Your task to perform on an android device: Open network settings Image 0: 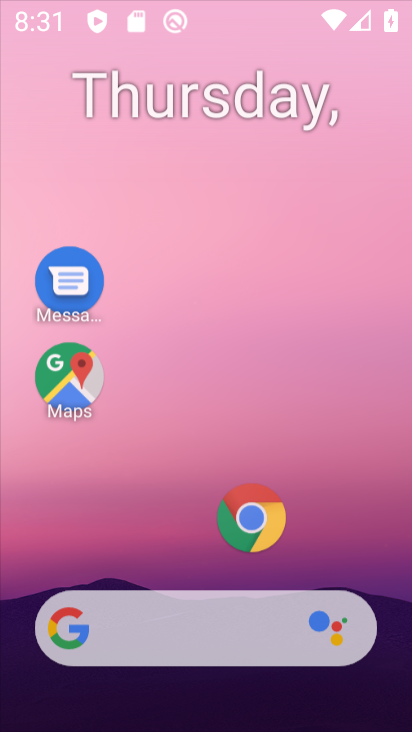
Step 0: click (44, 402)
Your task to perform on an android device: Open network settings Image 1: 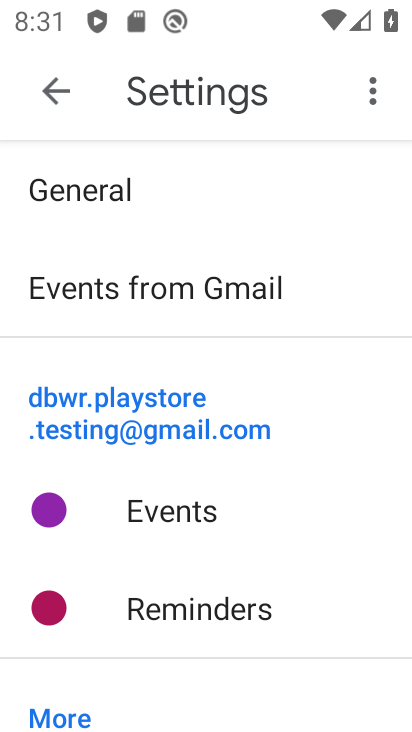
Step 1: drag from (265, 13) to (292, 537)
Your task to perform on an android device: Open network settings Image 2: 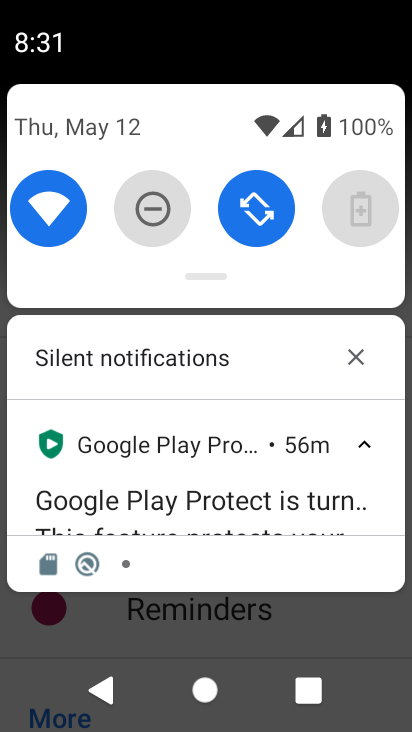
Step 2: drag from (306, 158) to (317, 585)
Your task to perform on an android device: Open network settings Image 3: 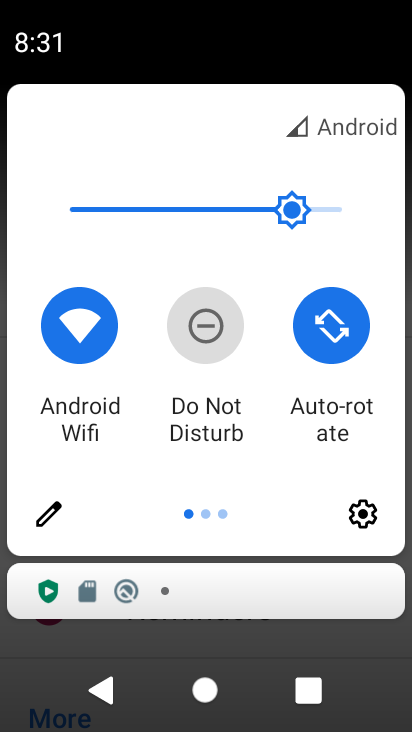
Step 3: drag from (358, 474) to (54, 463)
Your task to perform on an android device: Open network settings Image 4: 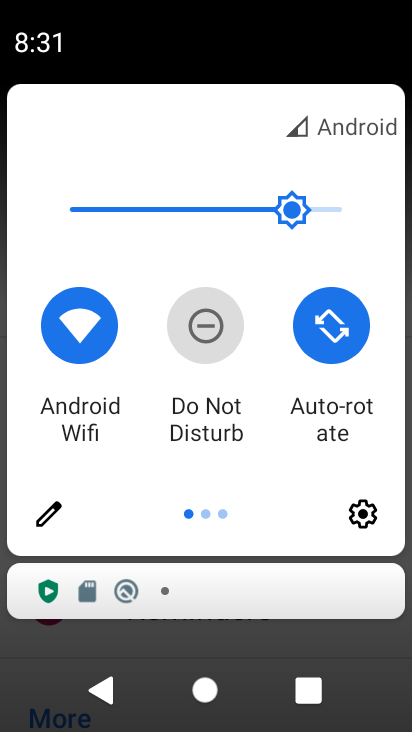
Step 4: drag from (367, 466) to (47, 433)
Your task to perform on an android device: Open network settings Image 5: 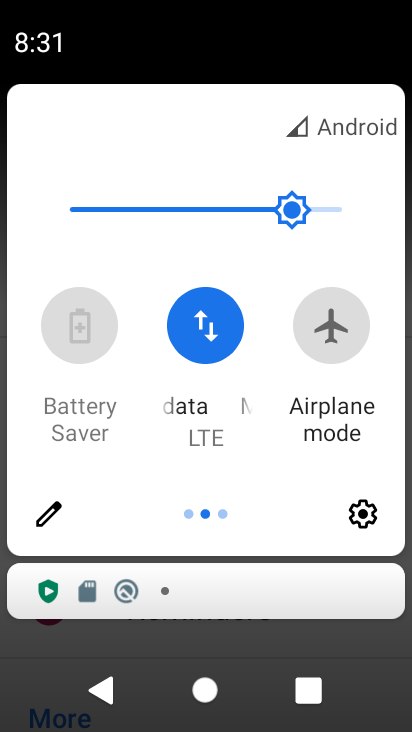
Step 5: click (201, 340)
Your task to perform on an android device: Open network settings Image 6: 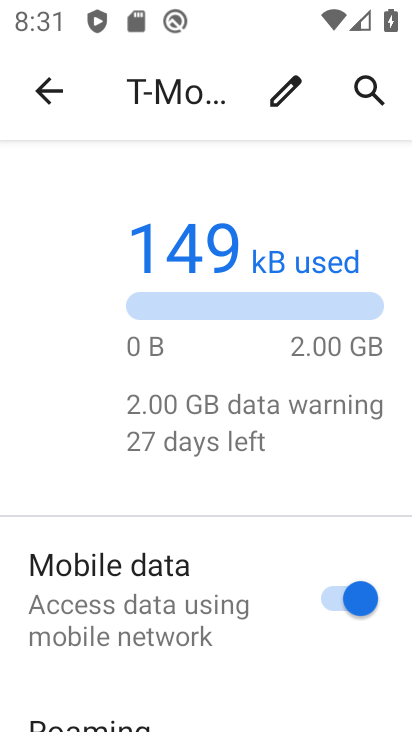
Step 6: task complete